Your task to perform on an android device: Open CNN.com Image 0: 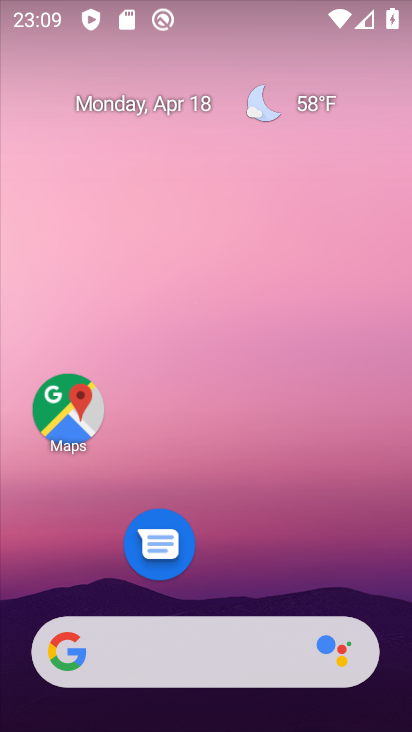
Step 0: drag from (249, 547) to (254, 4)
Your task to perform on an android device: Open CNN.com Image 1: 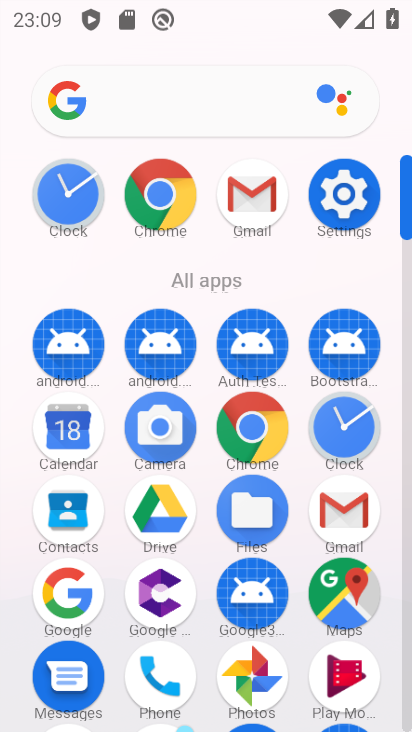
Step 1: click (158, 188)
Your task to perform on an android device: Open CNN.com Image 2: 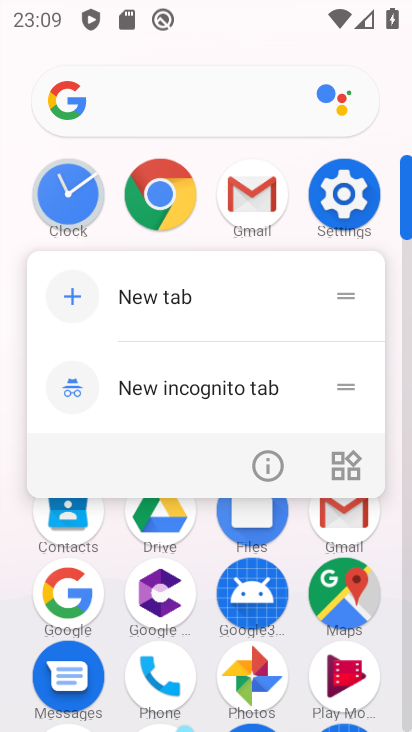
Step 2: click (158, 188)
Your task to perform on an android device: Open CNN.com Image 3: 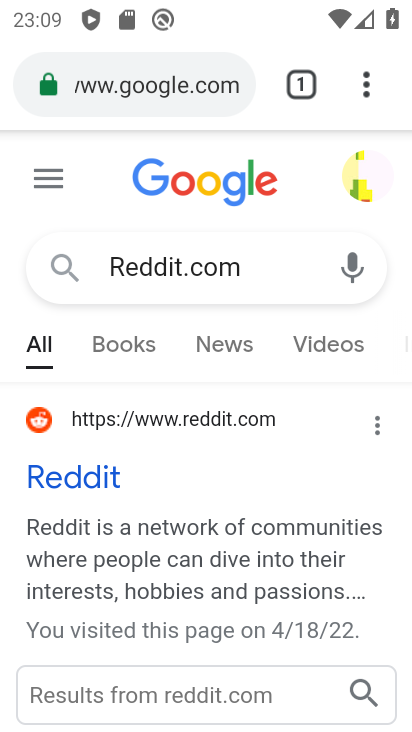
Step 3: click (212, 98)
Your task to perform on an android device: Open CNN.com Image 4: 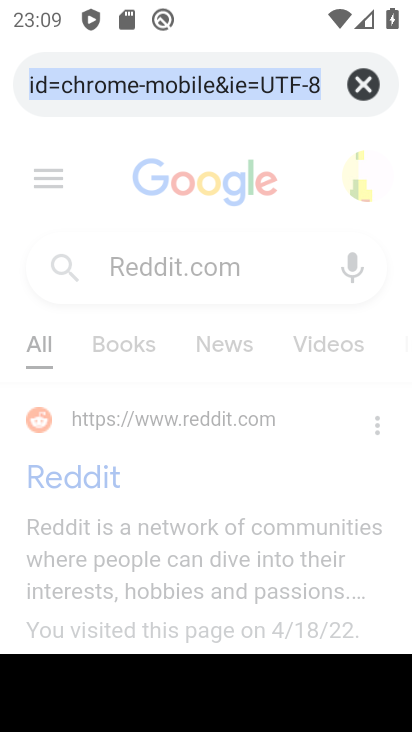
Step 4: click (365, 85)
Your task to perform on an android device: Open CNN.com Image 5: 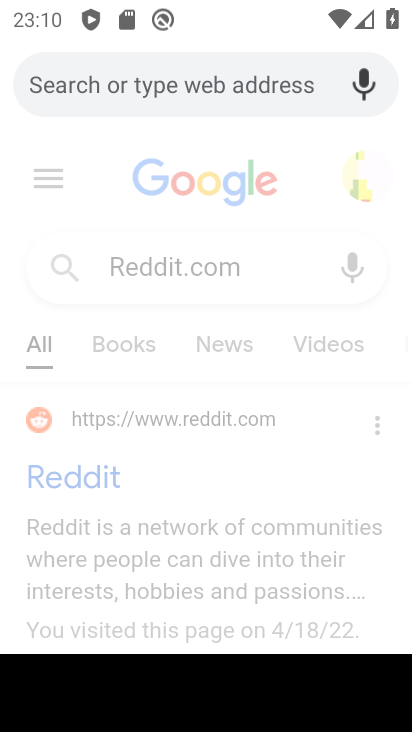
Step 5: type "CNN.com"
Your task to perform on an android device: Open CNN.com Image 6: 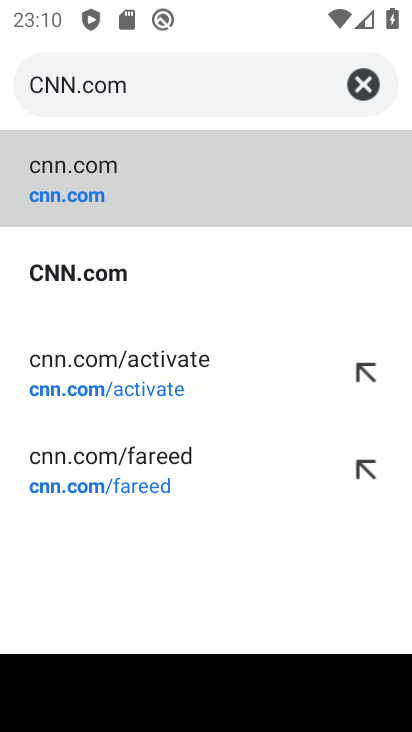
Step 6: click (93, 283)
Your task to perform on an android device: Open CNN.com Image 7: 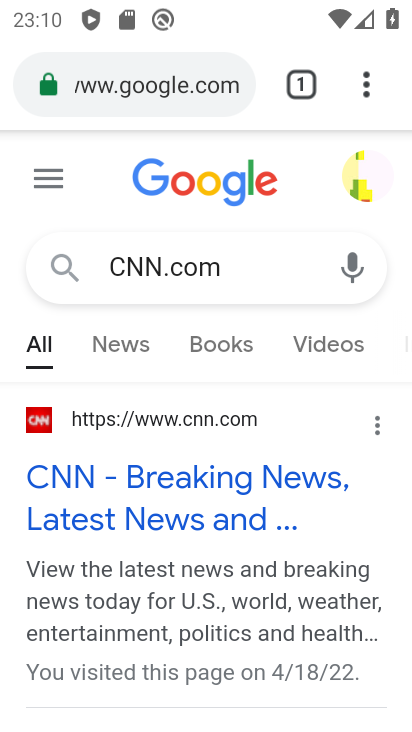
Step 7: task complete